Your task to perform on an android device: turn on wifi Image 0: 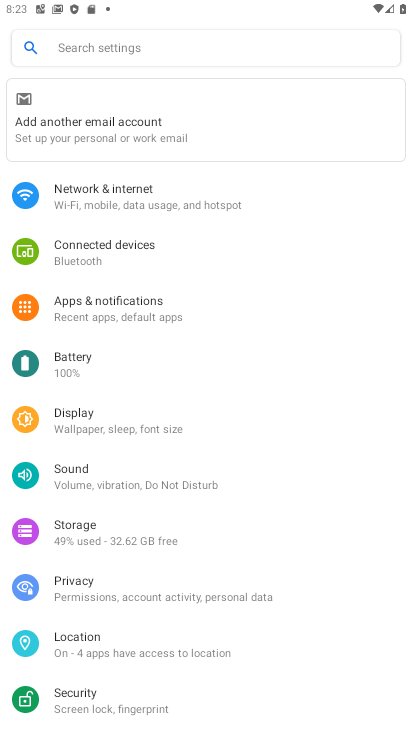
Step 0: click (226, 196)
Your task to perform on an android device: turn on wifi Image 1: 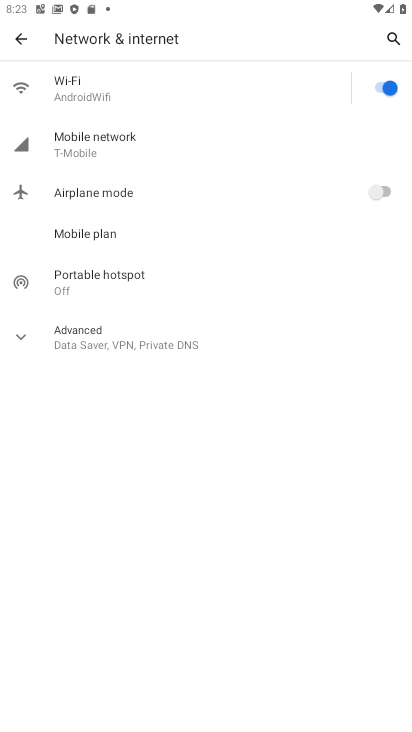
Step 1: task complete